Your task to perform on an android device: turn off priority inbox in the gmail app Image 0: 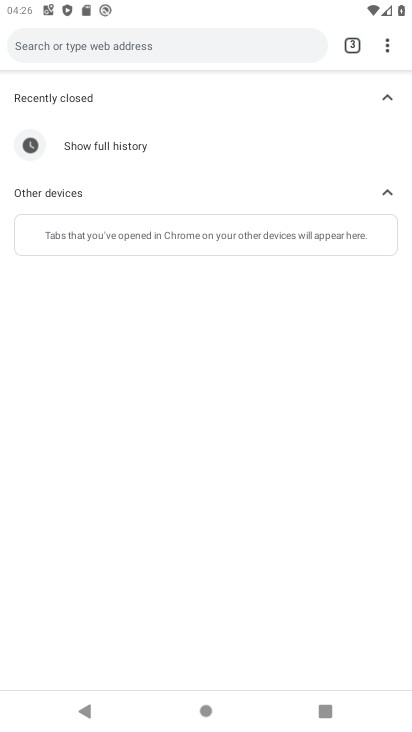
Step 0: press home button
Your task to perform on an android device: turn off priority inbox in the gmail app Image 1: 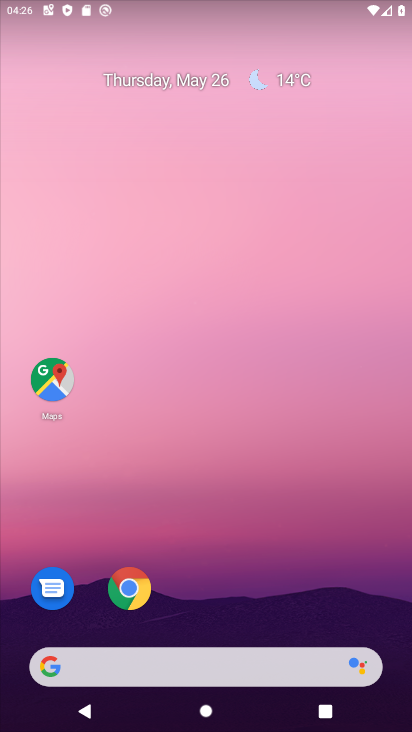
Step 1: drag from (241, 555) to (288, 231)
Your task to perform on an android device: turn off priority inbox in the gmail app Image 2: 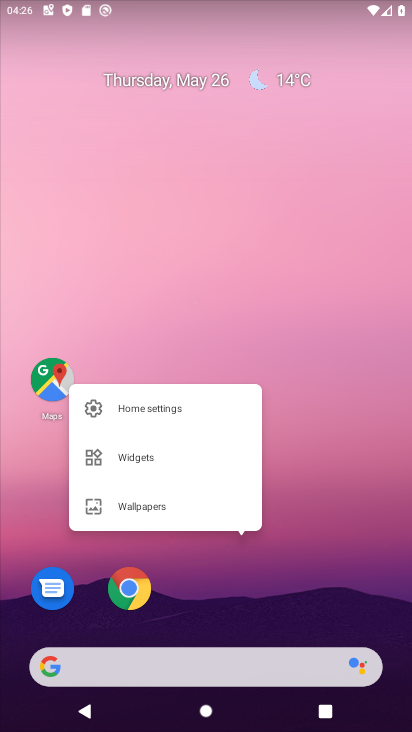
Step 2: click (338, 452)
Your task to perform on an android device: turn off priority inbox in the gmail app Image 3: 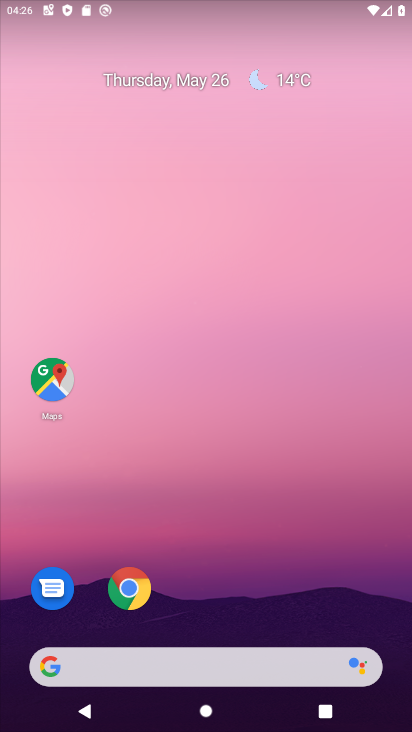
Step 3: drag from (257, 597) to (287, 176)
Your task to perform on an android device: turn off priority inbox in the gmail app Image 4: 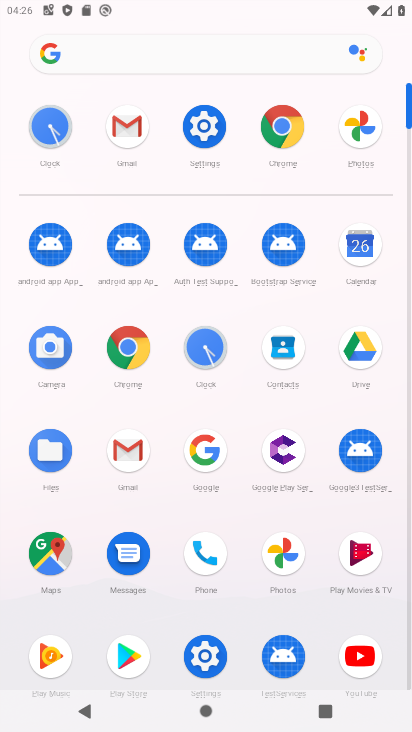
Step 4: click (130, 136)
Your task to perform on an android device: turn off priority inbox in the gmail app Image 5: 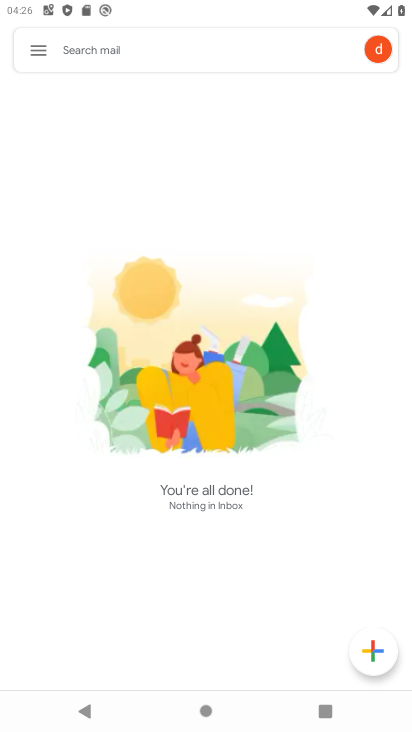
Step 5: click (51, 43)
Your task to perform on an android device: turn off priority inbox in the gmail app Image 6: 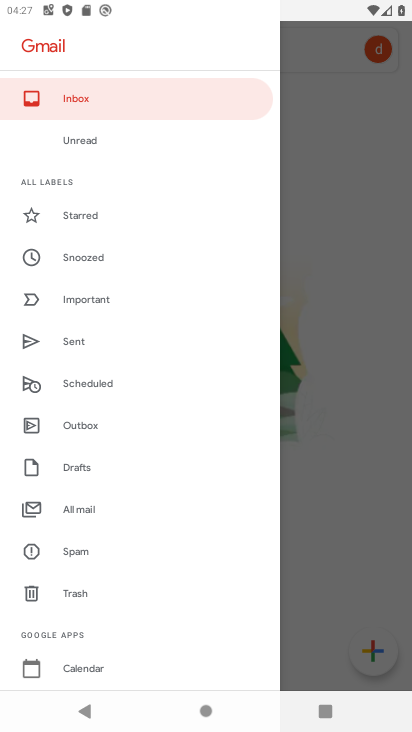
Step 6: drag from (116, 616) to (124, 441)
Your task to perform on an android device: turn off priority inbox in the gmail app Image 7: 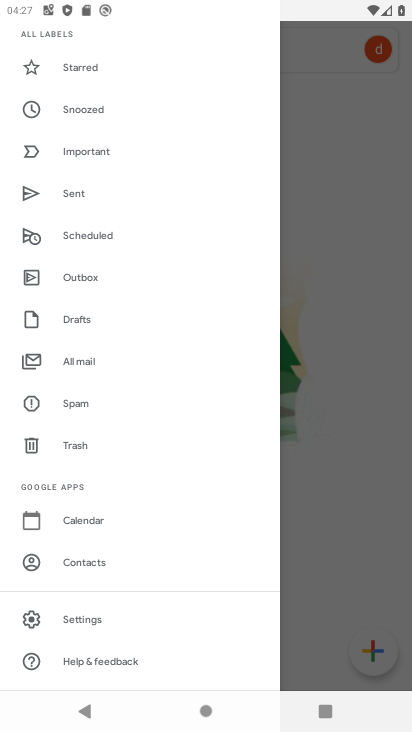
Step 7: click (102, 613)
Your task to perform on an android device: turn off priority inbox in the gmail app Image 8: 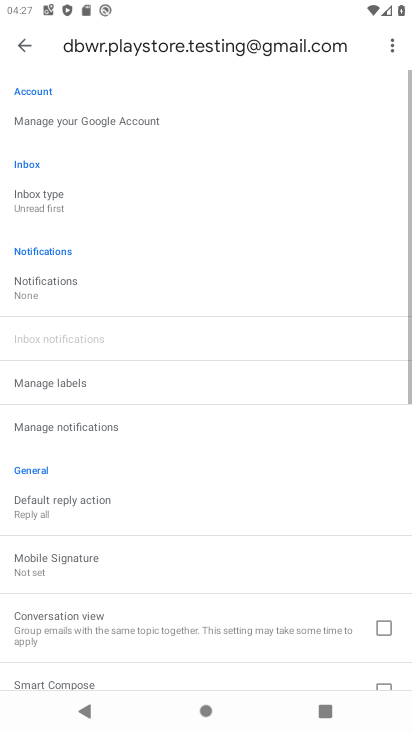
Step 8: task complete